Your task to perform on an android device: turn on bluetooth scan Image 0: 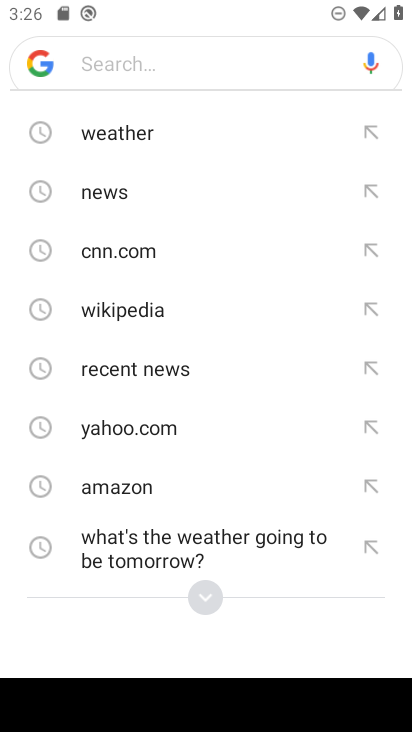
Step 0: press home button
Your task to perform on an android device: turn on bluetooth scan Image 1: 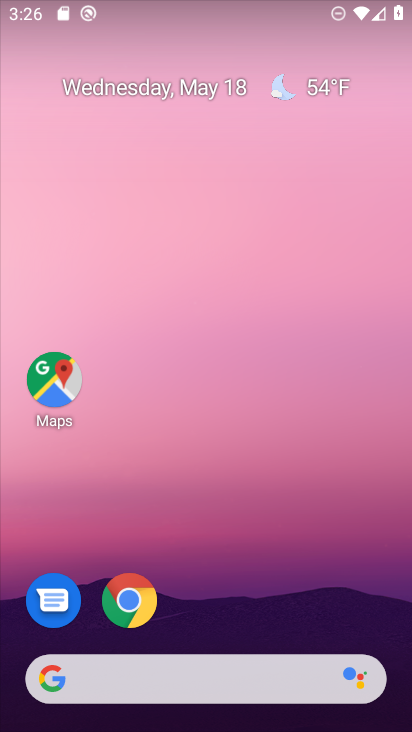
Step 1: drag from (199, 604) to (239, 77)
Your task to perform on an android device: turn on bluetooth scan Image 2: 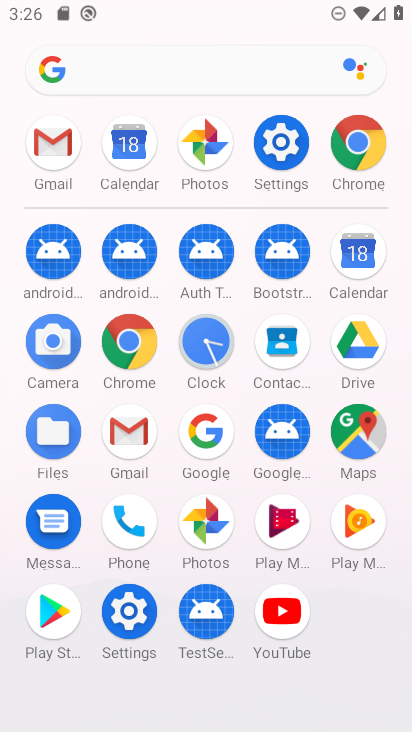
Step 2: click (134, 619)
Your task to perform on an android device: turn on bluetooth scan Image 3: 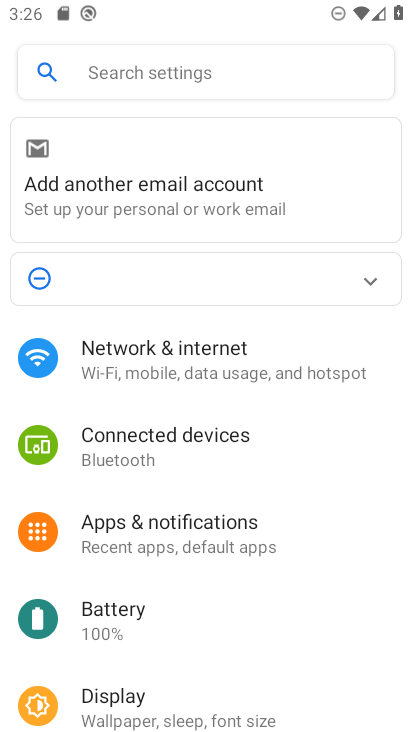
Step 3: drag from (156, 619) to (221, 263)
Your task to perform on an android device: turn on bluetooth scan Image 4: 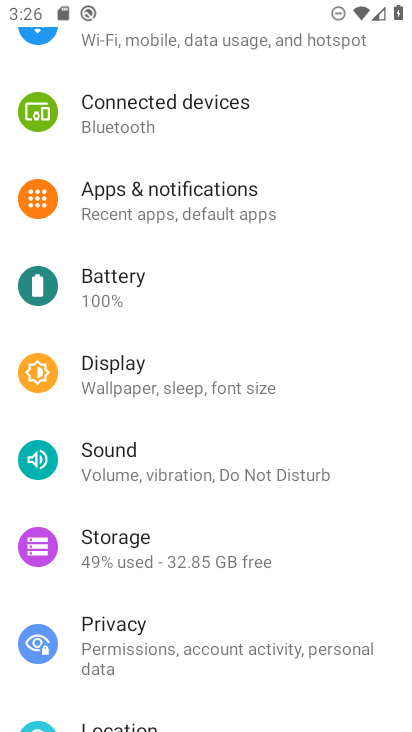
Step 4: drag from (122, 596) to (201, 317)
Your task to perform on an android device: turn on bluetooth scan Image 5: 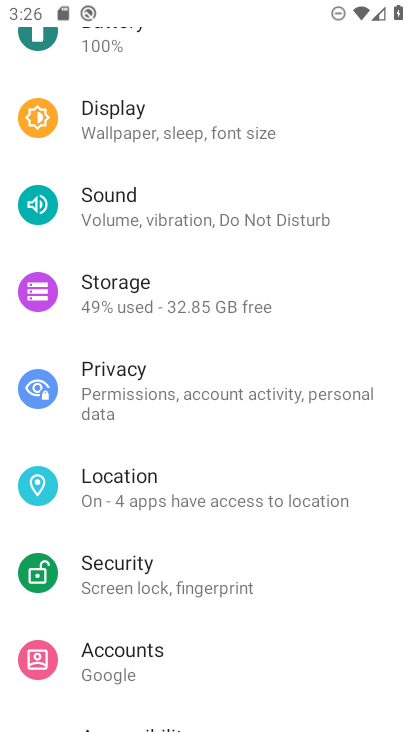
Step 5: click (159, 514)
Your task to perform on an android device: turn on bluetooth scan Image 6: 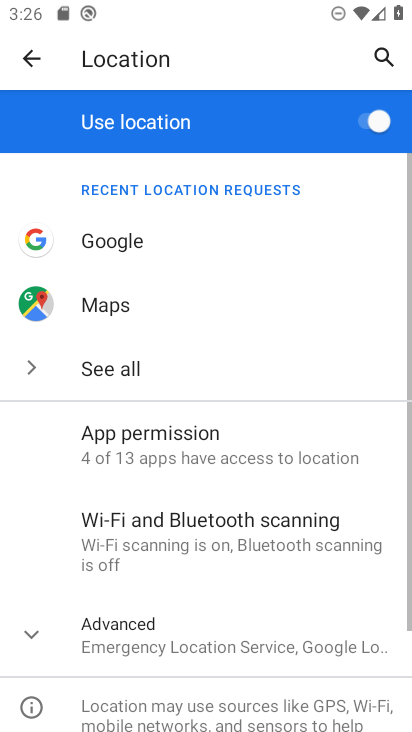
Step 6: drag from (216, 552) to (274, 373)
Your task to perform on an android device: turn on bluetooth scan Image 7: 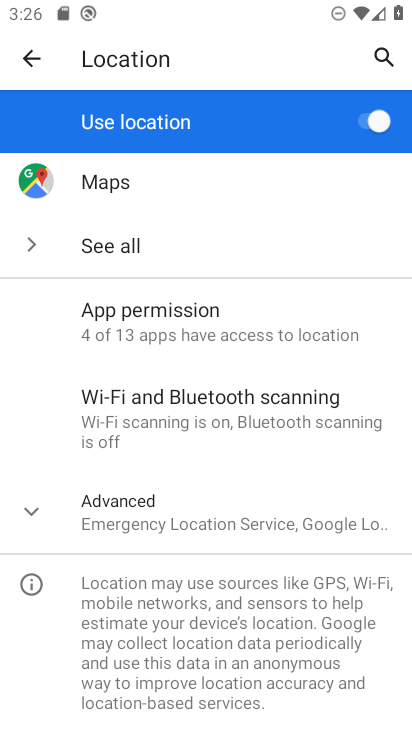
Step 7: click (227, 402)
Your task to perform on an android device: turn on bluetooth scan Image 8: 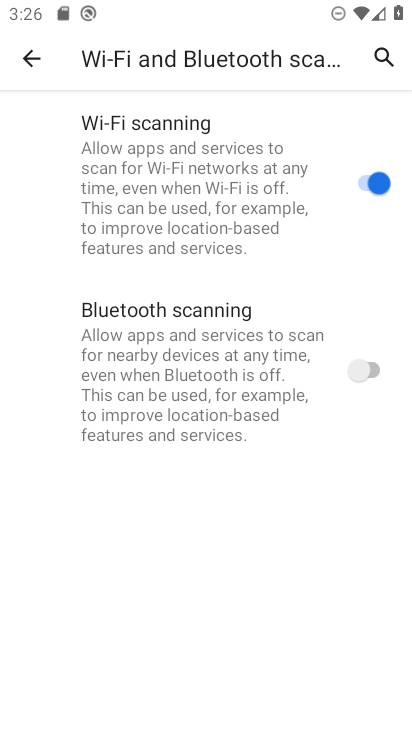
Step 8: click (377, 366)
Your task to perform on an android device: turn on bluetooth scan Image 9: 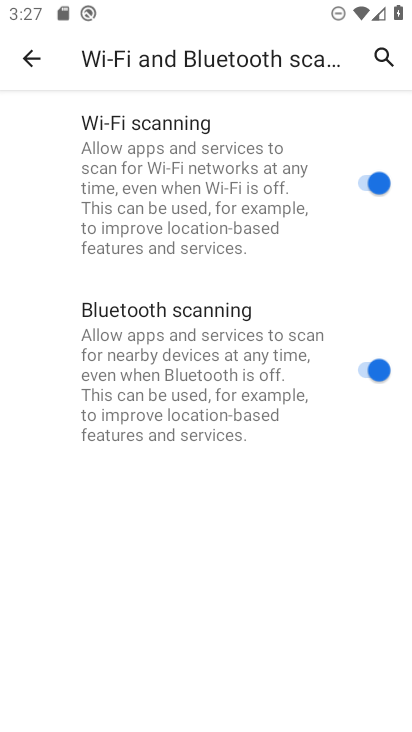
Step 9: task complete